Your task to perform on an android device: Go to calendar. Show me events next week Image 0: 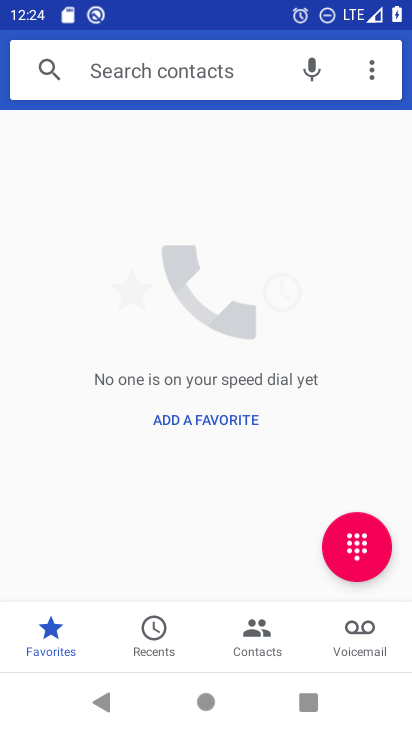
Step 0: press home button
Your task to perform on an android device: Go to calendar. Show me events next week Image 1: 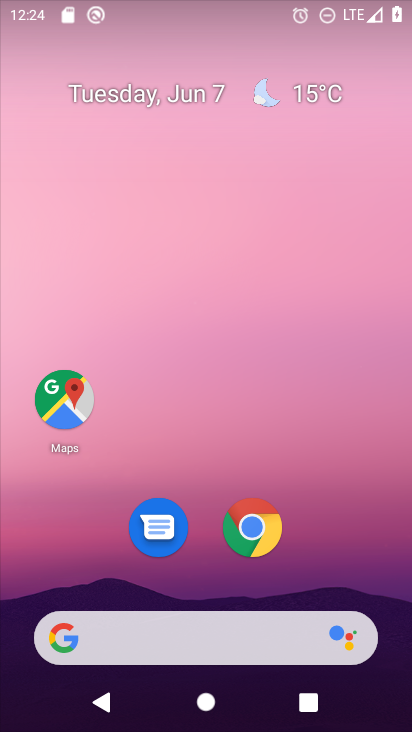
Step 1: drag from (330, 557) to (330, 90)
Your task to perform on an android device: Go to calendar. Show me events next week Image 2: 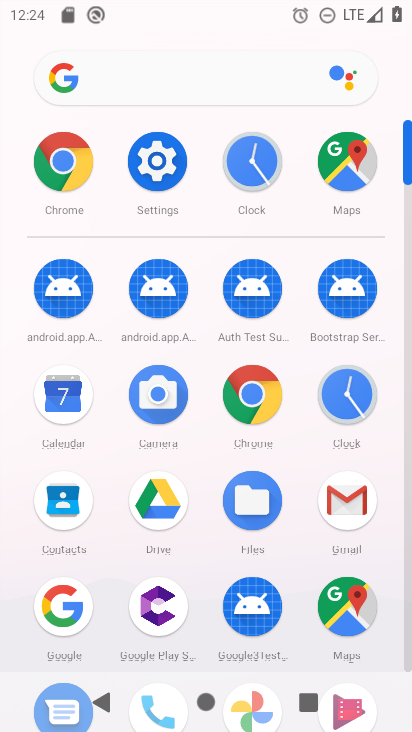
Step 2: drag from (298, 426) to (293, 213)
Your task to perform on an android device: Go to calendar. Show me events next week Image 3: 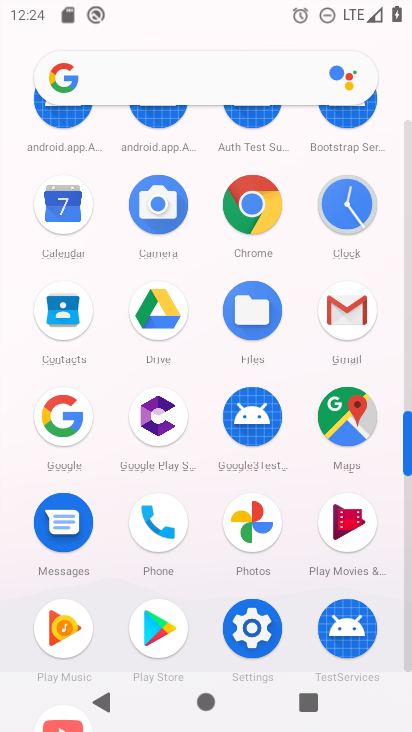
Step 3: drag from (286, 558) to (291, 374)
Your task to perform on an android device: Go to calendar. Show me events next week Image 4: 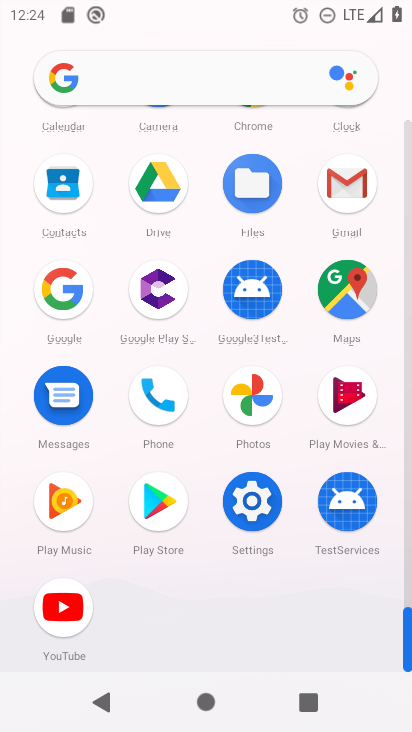
Step 4: drag from (292, 219) to (290, 509)
Your task to perform on an android device: Go to calendar. Show me events next week Image 5: 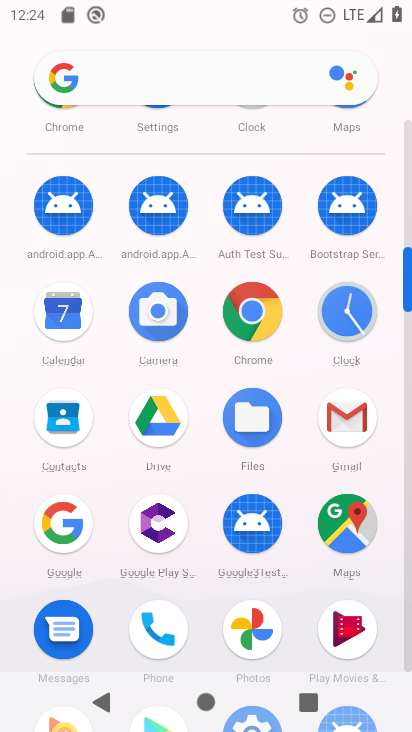
Step 5: drag from (301, 242) to (299, 418)
Your task to perform on an android device: Go to calendar. Show me events next week Image 6: 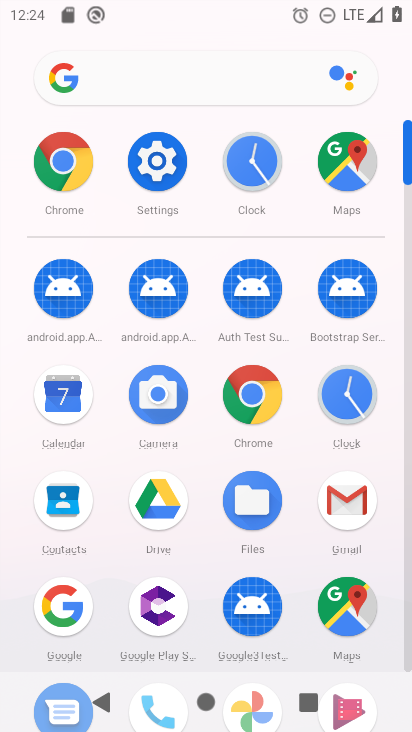
Step 6: click (56, 404)
Your task to perform on an android device: Go to calendar. Show me events next week Image 7: 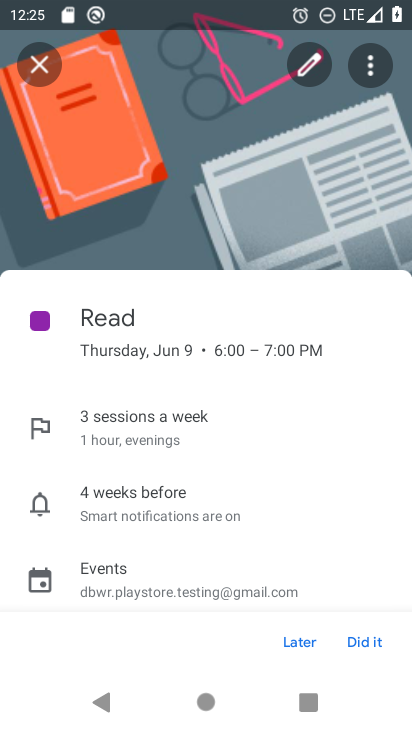
Step 7: click (41, 70)
Your task to perform on an android device: Go to calendar. Show me events next week Image 8: 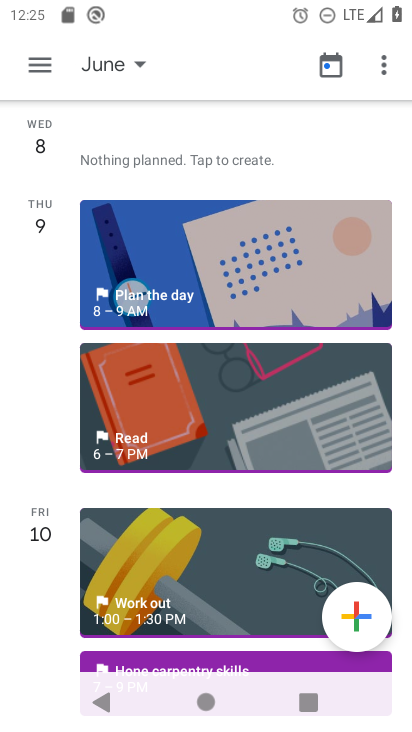
Step 8: drag from (261, 435) to (250, 288)
Your task to perform on an android device: Go to calendar. Show me events next week Image 9: 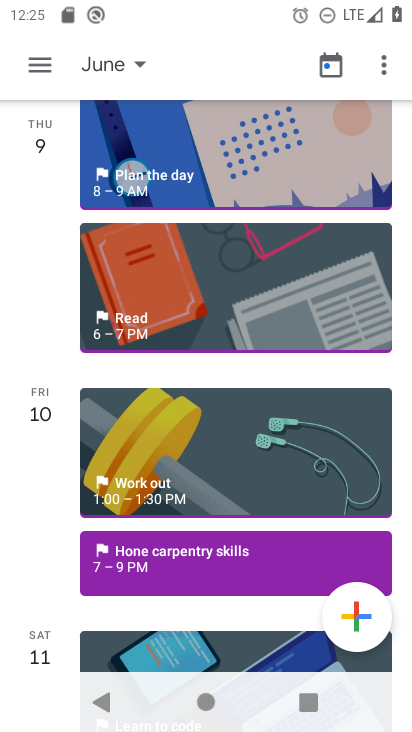
Step 9: drag from (247, 469) to (246, 272)
Your task to perform on an android device: Go to calendar. Show me events next week Image 10: 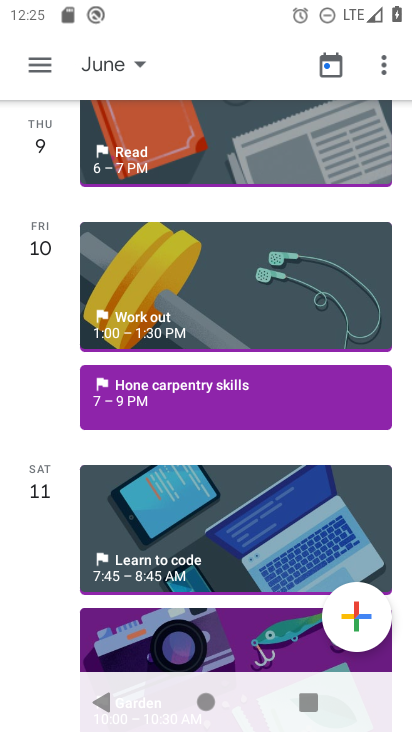
Step 10: drag from (237, 432) to (242, 277)
Your task to perform on an android device: Go to calendar. Show me events next week Image 11: 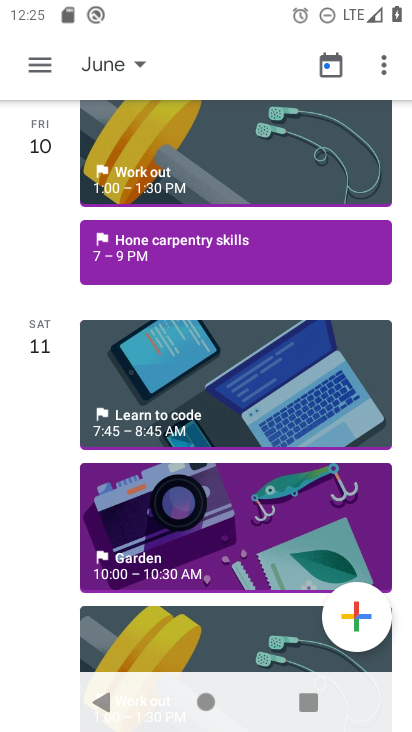
Step 11: drag from (246, 417) to (245, 267)
Your task to perform on an android device: Go to calendar. Show me events next week Image 12: 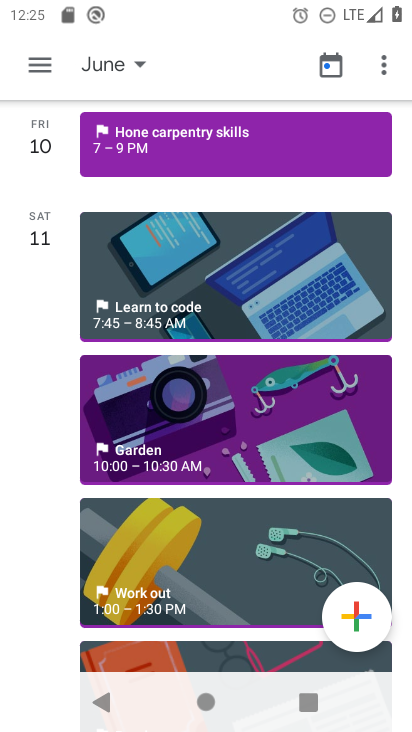
Step 12: drag from (267, 246) to (272, 459)
Your task to perform on an android device: Go to calendar. Show me events next week Image 13: 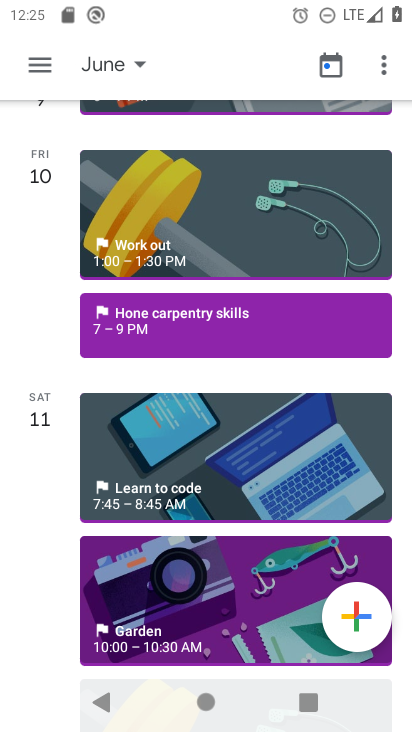
Step 13: drag from (274, 206) to (274, 390)
Your task to perform on an android device: Go to calendar. Show me events next week Image 14: 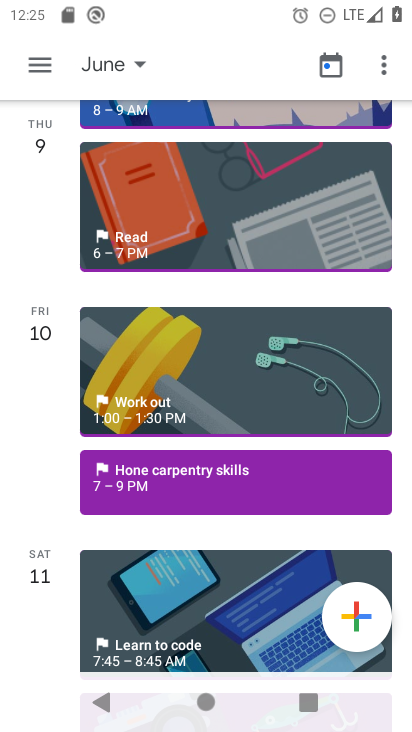
Step 14: click (239, 189)
Your task to perform on an android device: Go to calendar. Show me events next week Image 15: 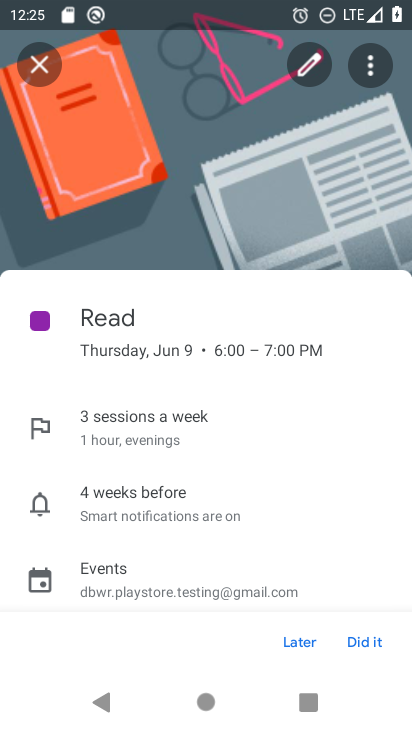
Step 15: task complete